Your task to perform on an android device: turn off sleep mode Image 0: 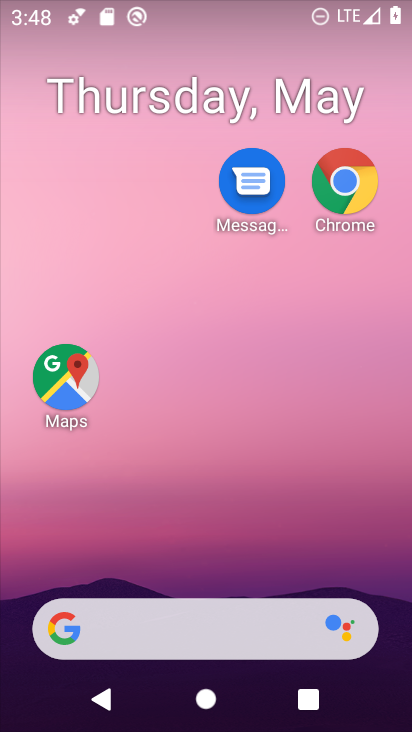
Step 0: drag from (288, 597) to (293, 35)
Your task to perform on an android device: turn off sleep mode Image 1: 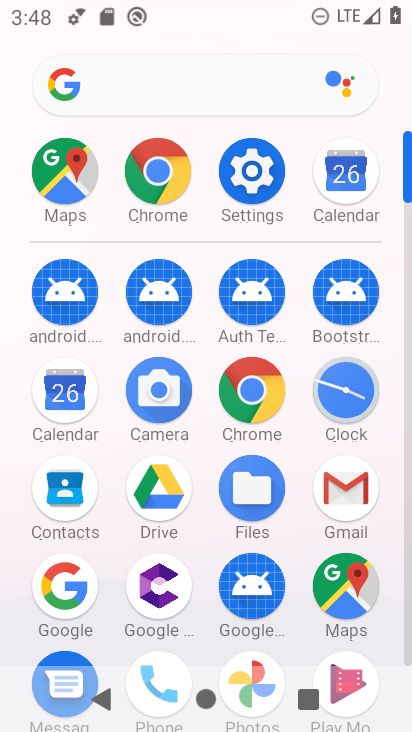
Step 1: click (256, 186)
Your task to perform on an android device: turn off sleep mode Image 2: 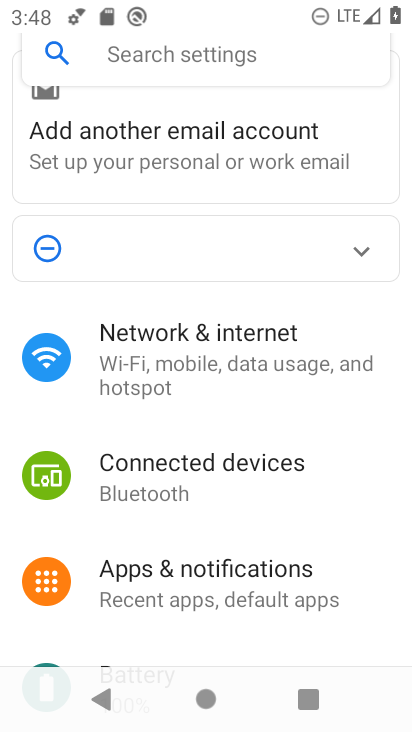
Step 2: drag from (303, 578) to (300, 239)
Your task to perform on an android device: turn off sleep mode Image 3: 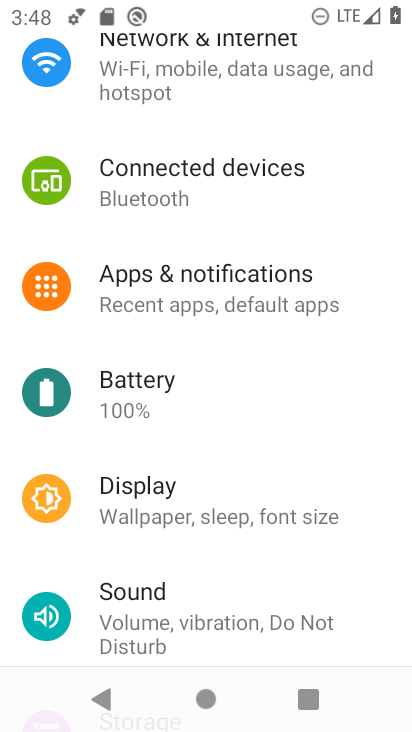
Step 3: click (299, 498)
Your task to perform on an android device: turn off sleep mode Image 4: 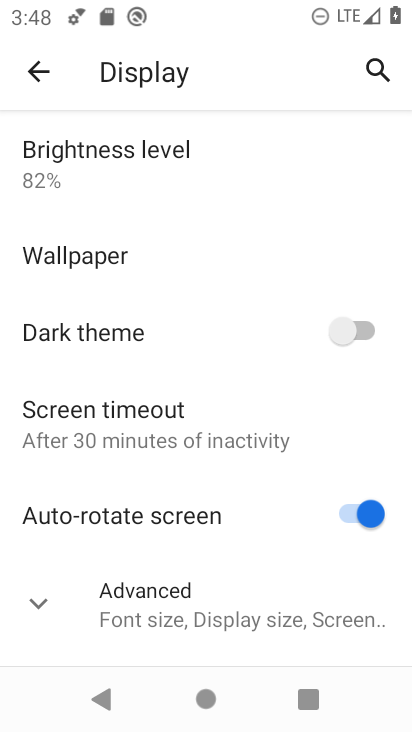
Step 4: drag from (291, 528) to (288, 151)
Your task to perform on an android device: turn off sleep mode Image 5: 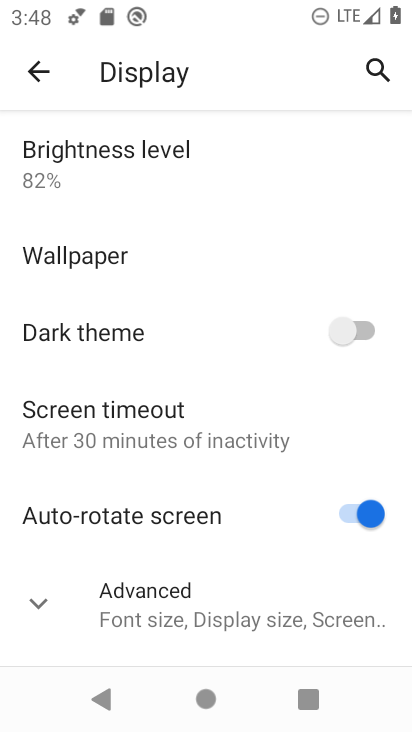
Step 5: click (254, 614)
Your task to perform on an android device: turn off sleep mode Image 6: 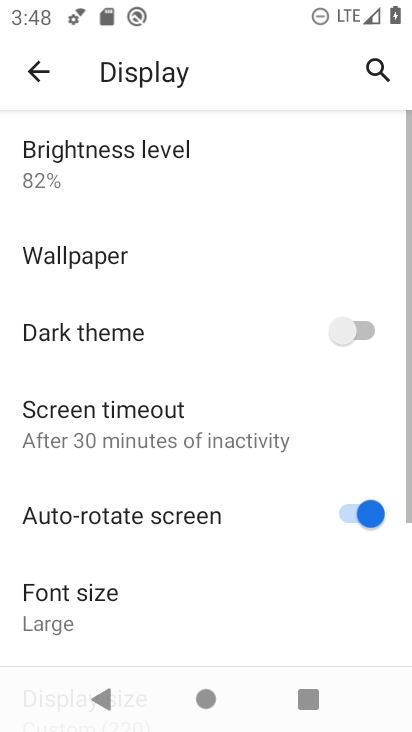
Step 6: task complete